Your task to perform on an android device: turn off data saver in the chrome app Image 0: 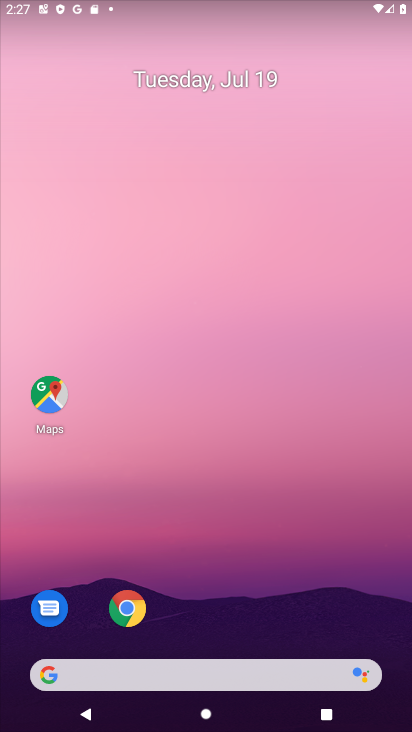
Step 0: drag from (272, 664) to (254, 95)
Your task to perform on an android device: turn off data saver in the chrome app Image 1: 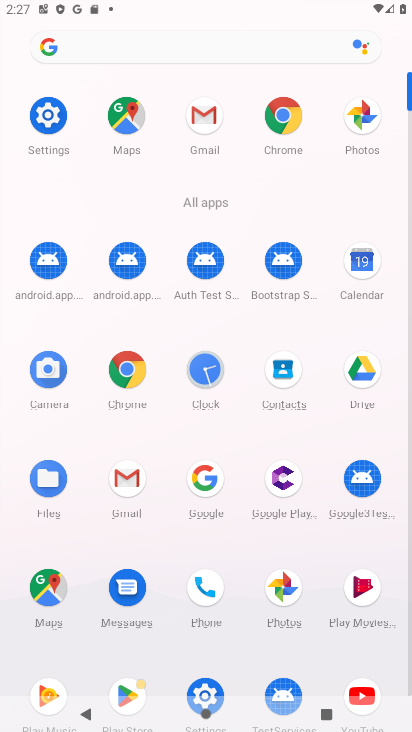
Step 1: click (128, 367)
Your task to perform on an android device: turn off data saver in the chrome app Image 2: 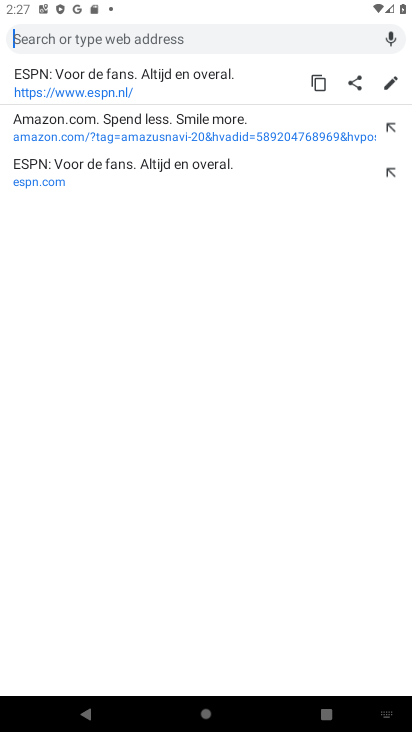
Step 2: press back button
Your task to perform on an android device: turn off data saver in the chrome app Image 3: 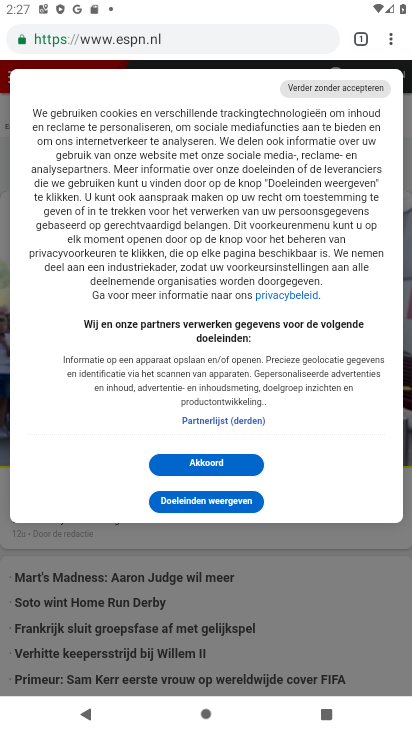
Step 3: drag from (394, 33) to (279, 467)
Your task to perform on an android device: turn off data saver in the chrome app Image 4: 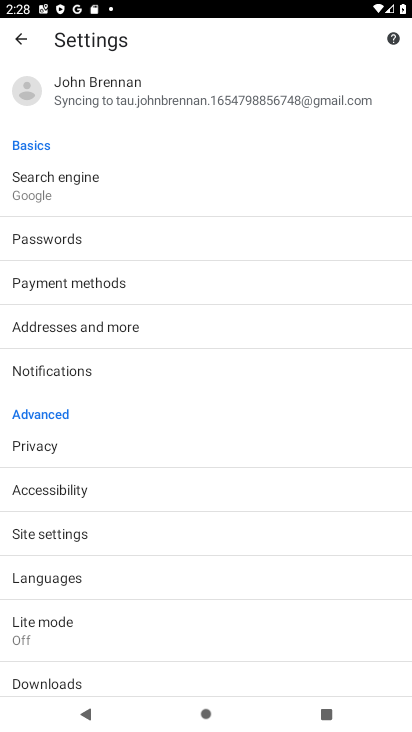
Step 4: click (77, 540)
Your task to perform on an android device: turn off data saver in the chrome app Image 5: 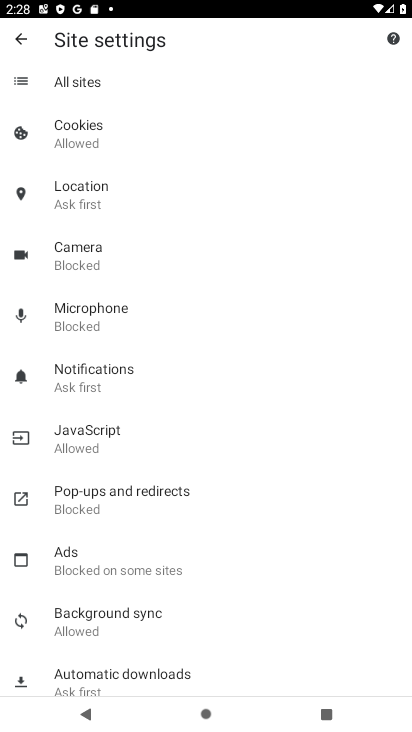
Step 5: click (28, 42)
Your task to perform on an android device: turn off data saver in the chrome app Image 6: 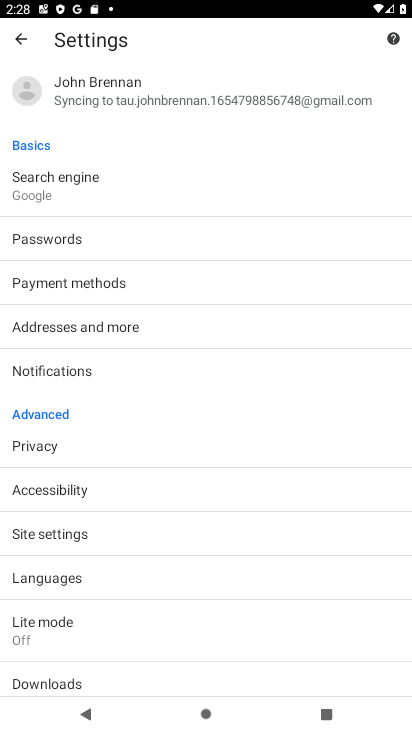
Step 6: click (84, 628)
Your task to perform on an android device: turn off data saver in the chrome app Image 7: 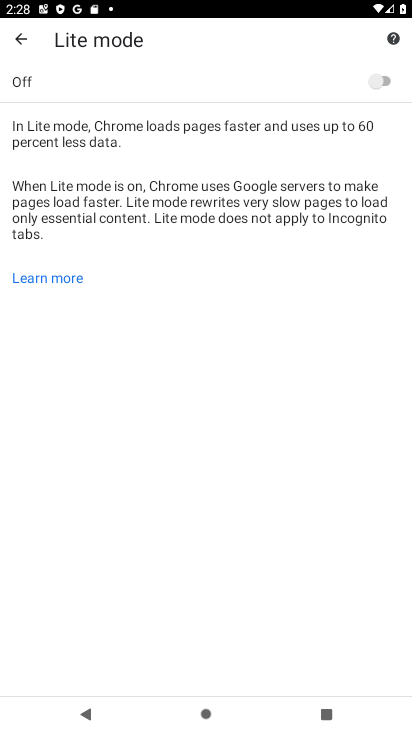
Step 7: task complete